Your task to perform on an android device: Search for Italian restaurants on Maps Image 0: 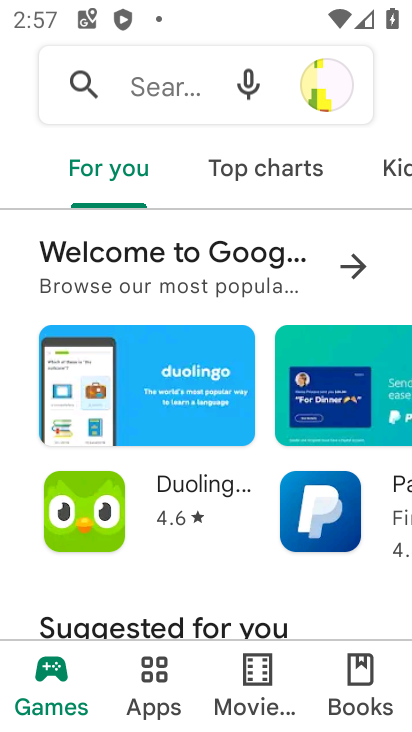
Step 0: press home button
Your task to perform on an android device: Search for Italian restaurants on Maps Image 1: 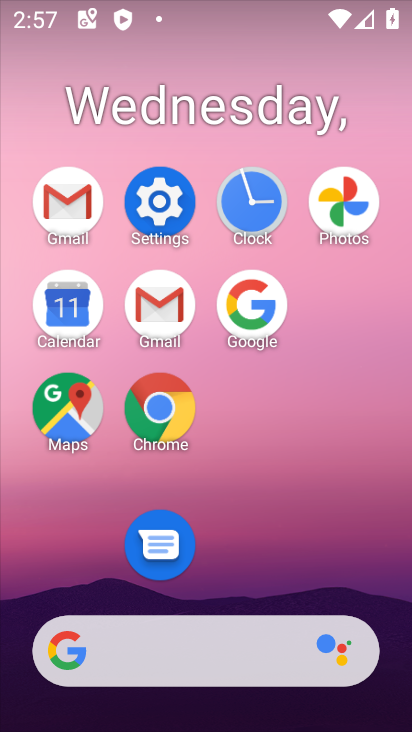
Step 1: click (80, 412)
Your task to perform on an android device: Search for Italian restaurants on Maps Image 2: 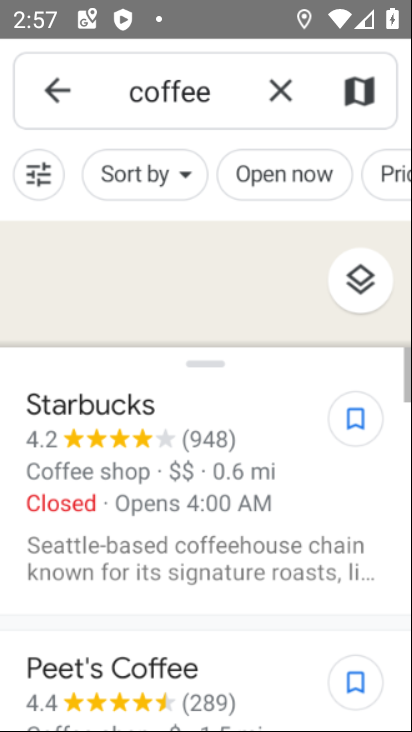
Step 2: click (280, 75)
Your task to perform on an android device: Search for Italian restaurants on Maps Image 3: 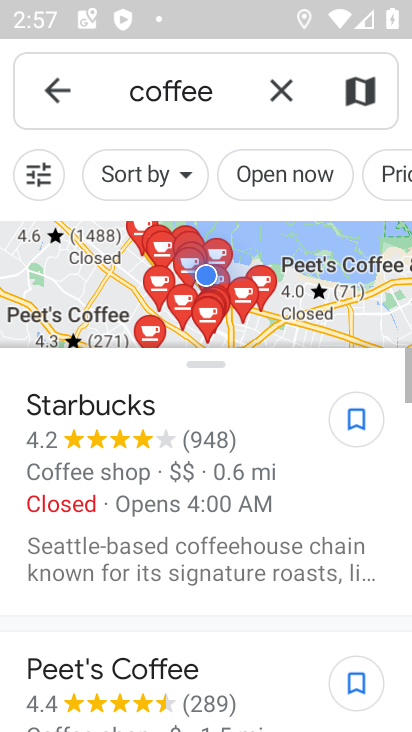
Step 3: click (286, 81)
Your task to perform on an android device: Search for Italian restaurants on Maps Image 4: 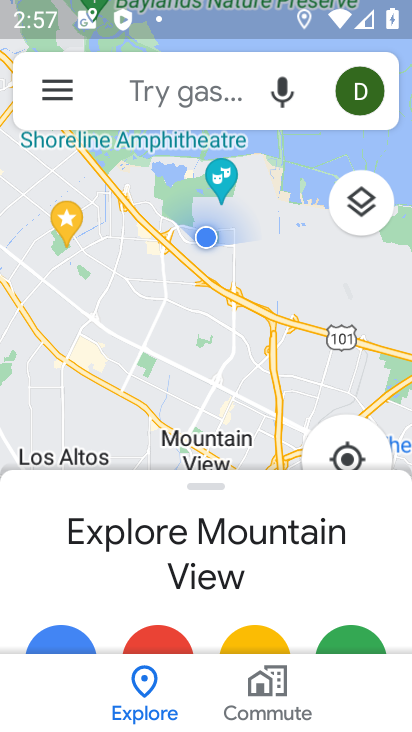
Step 4: click (216, 88)
Your task to perform on an android device: Search for Italian restaurants on Maps Image 5: 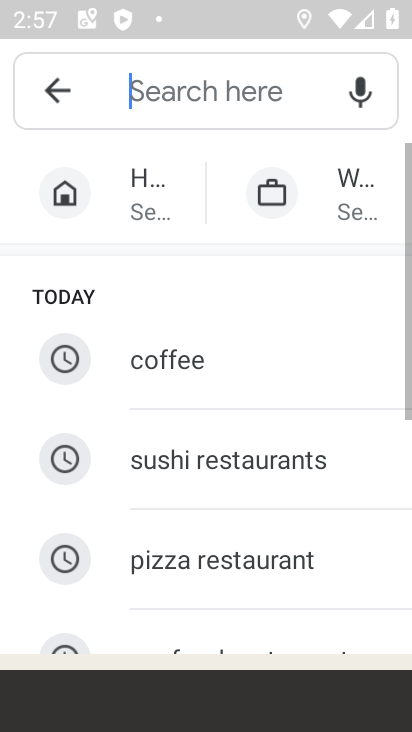
Step 5: click (216, 88)
Your task to perform on an android device: Search for Italian restaurants on Maps Image 6: 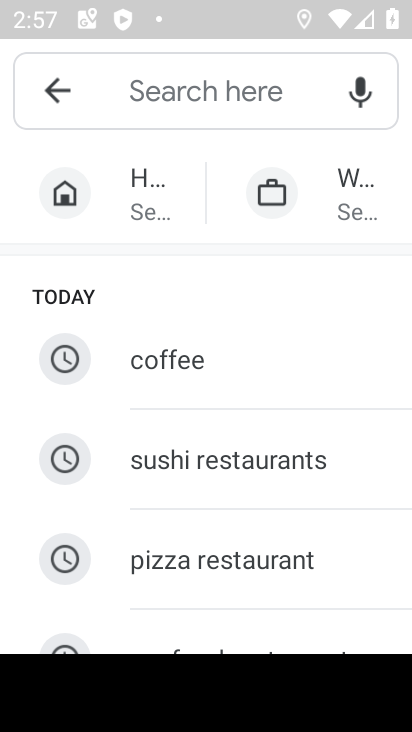
Step 6: click (253, 91)
Your task to perform on an android device: Search for Italian restaurants on Maps Image 7: 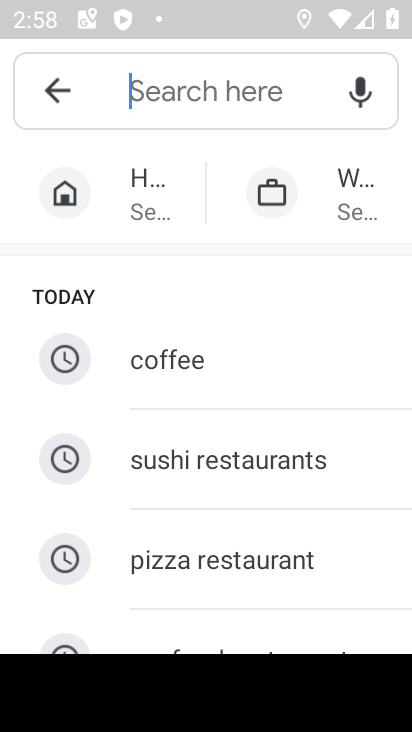
Step 7: drag from (207, 566) to (301, 223)
Your task to perform on an android device: Search for Italian restaurants on Maps Image 8: 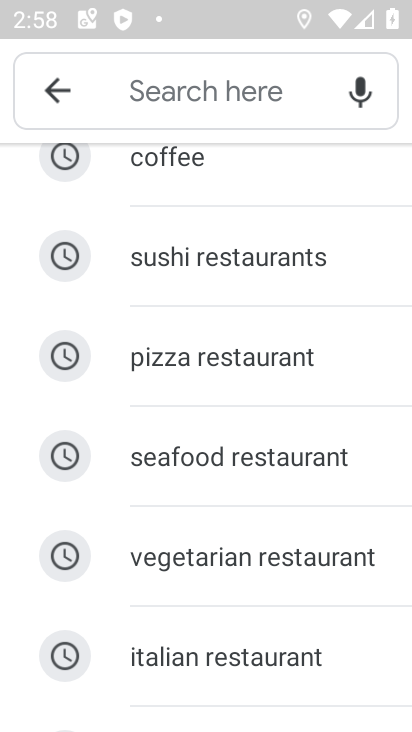
Step 8: click (195, 677)
Your task to perform on an android device: Search for Italian restaurants on Maps Image 9: 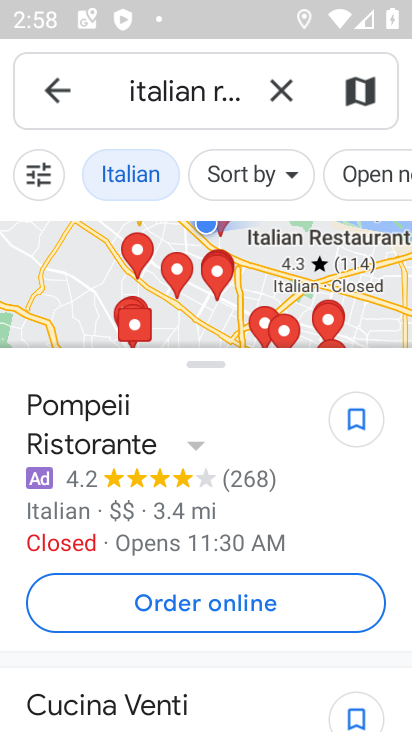
Step 9: task complete